Your task to perform on an android device: Open location settings Image 0: 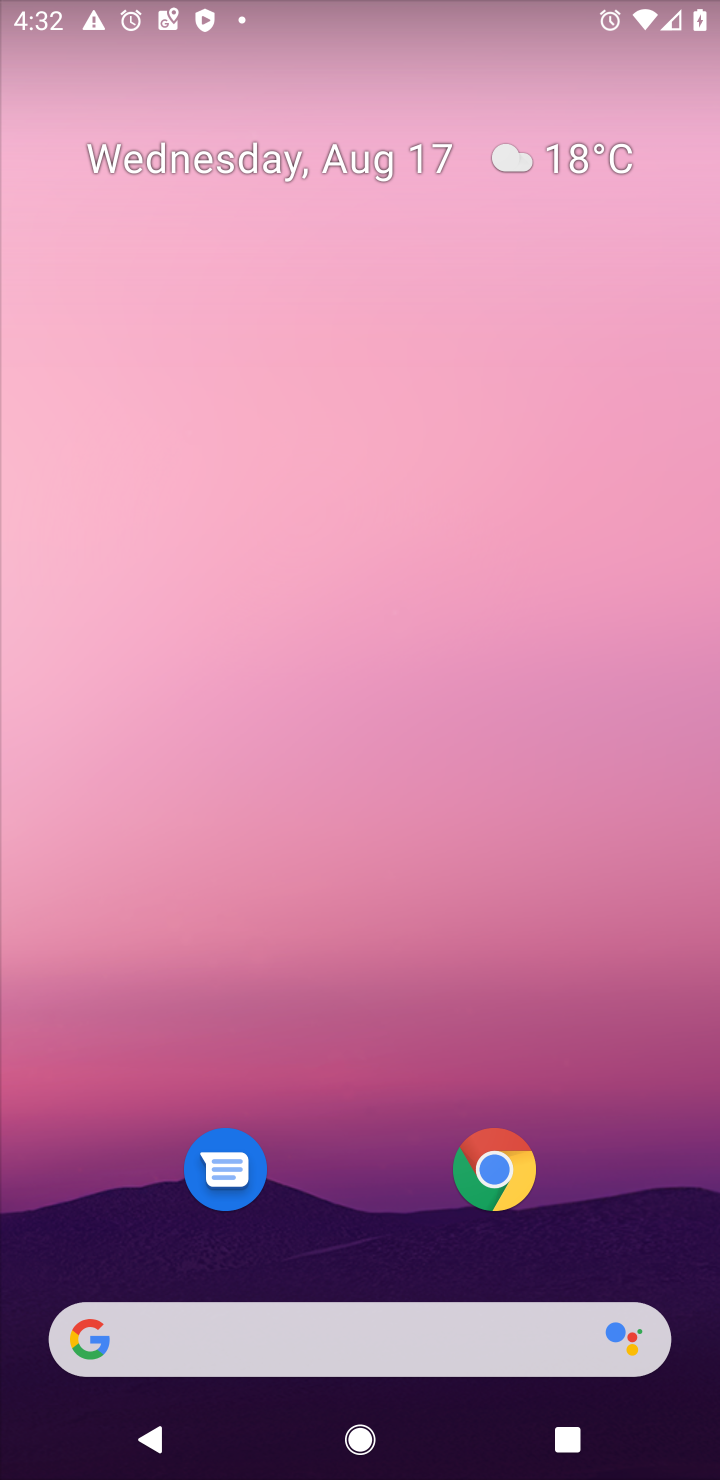
Step 0: press home button
Your task to perform on an android device: Open location settings Image 1: 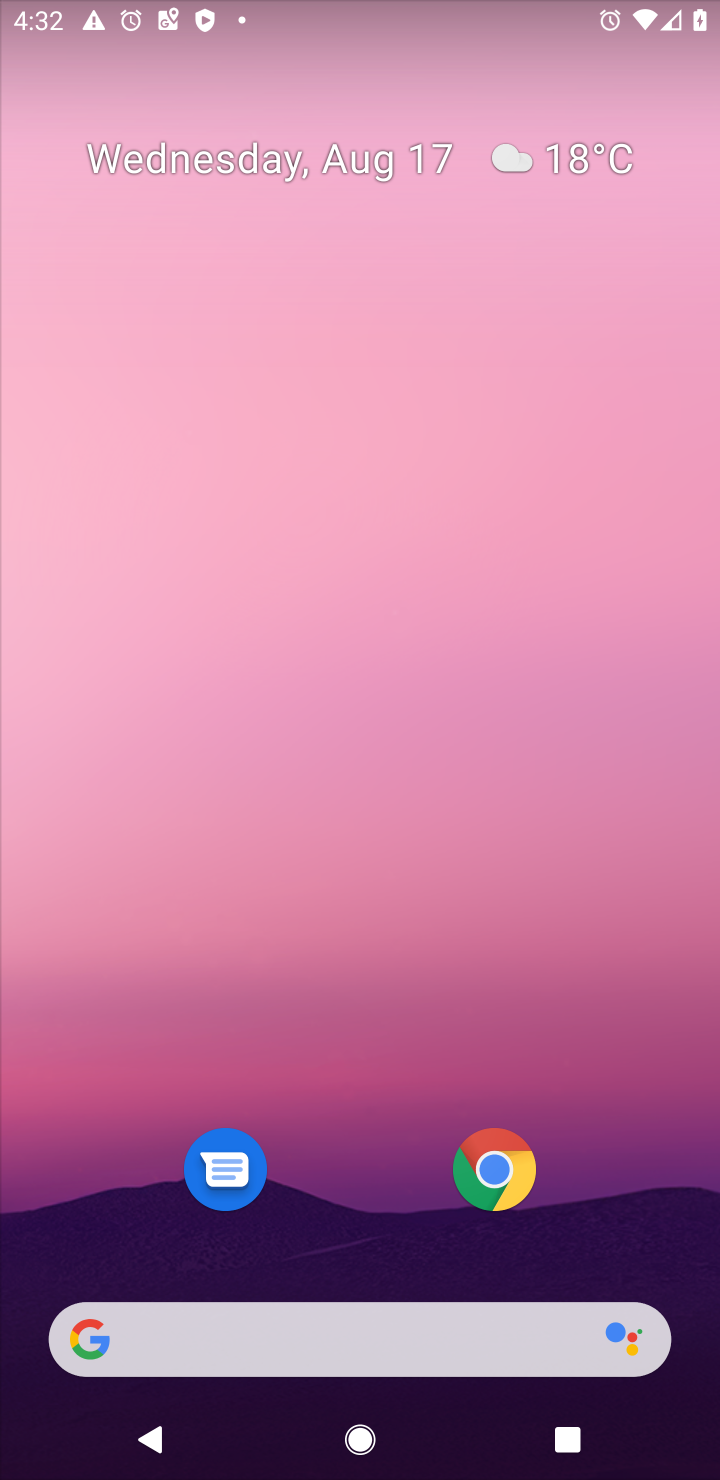
Step 1: drag from (371, 1242) to (429, 289)
Your task to perform on an android device: Open location settings Image 2: 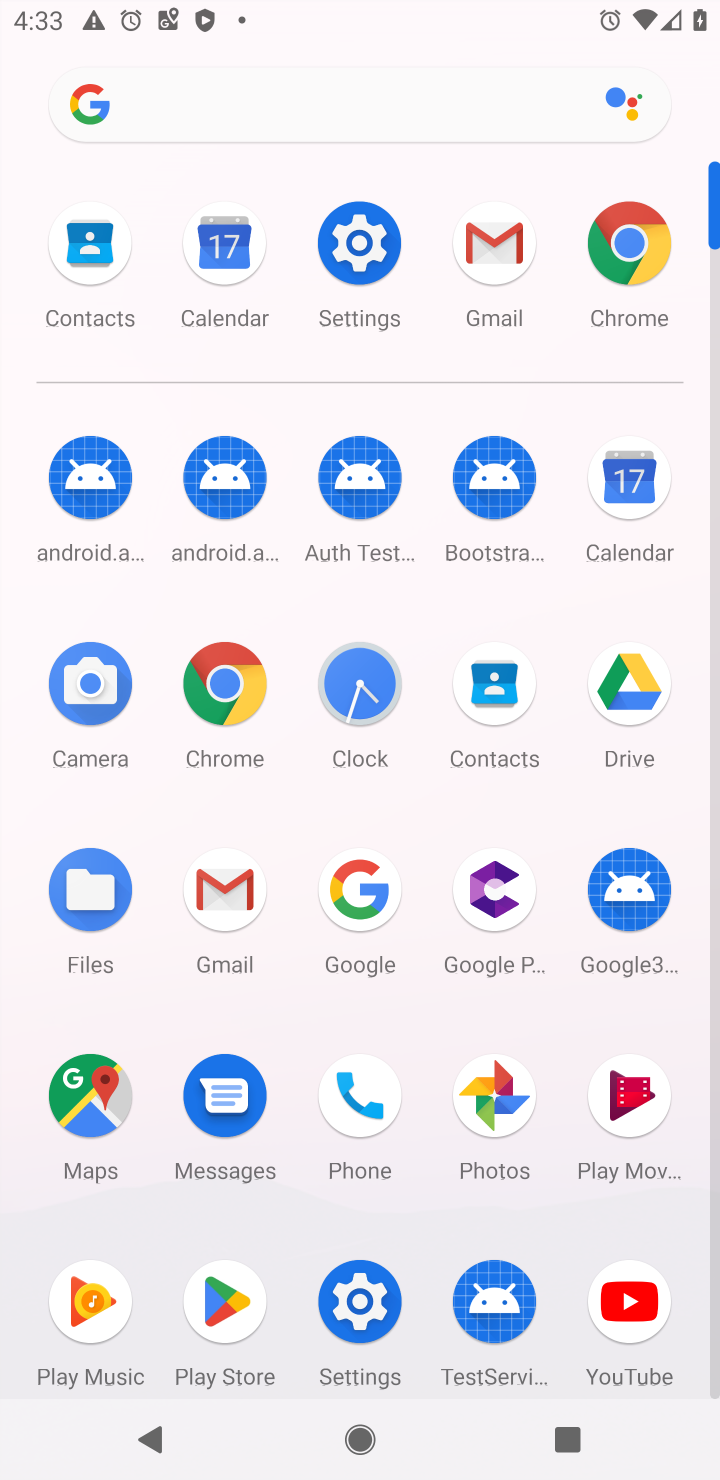
Step 2: click (362, 1303)
Your task to perform on an android device: Open location settings Image 3: 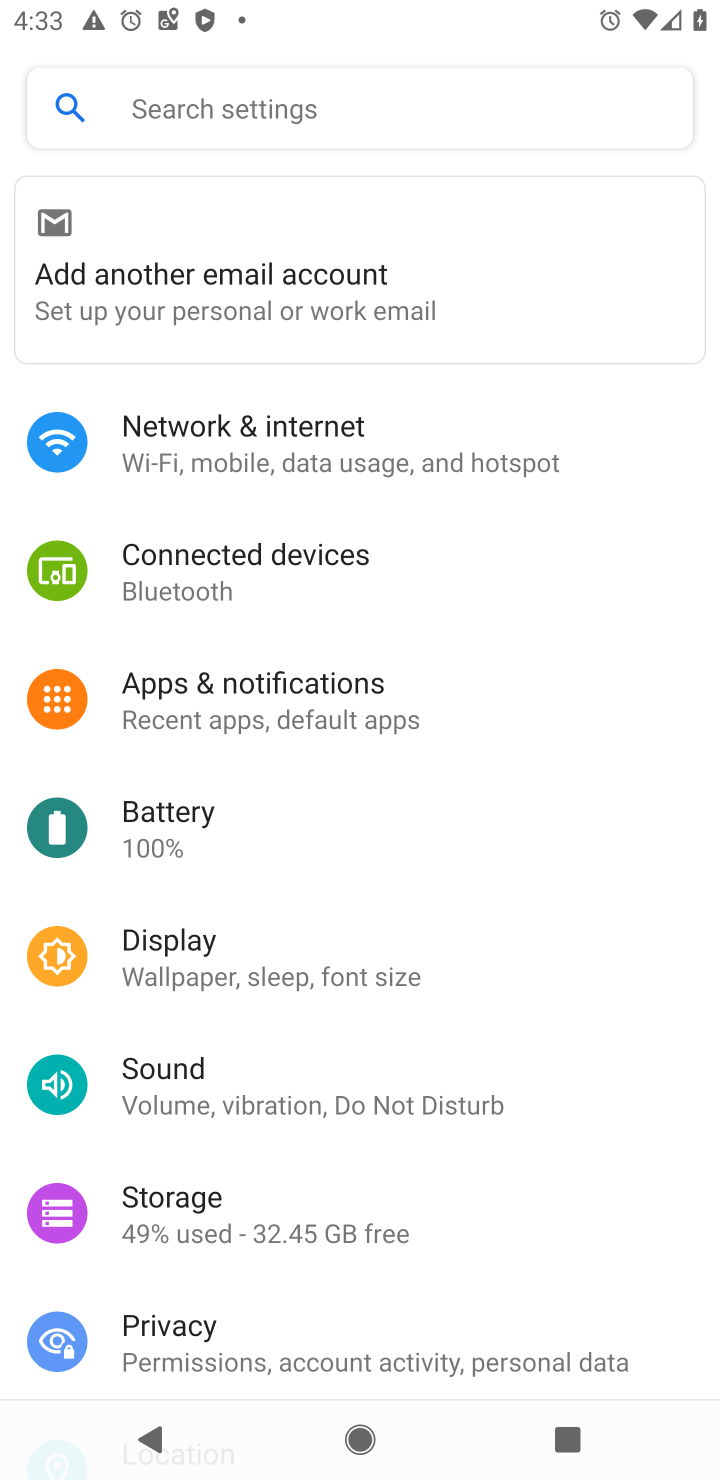
Step 3: drag from (363, 1331) to (334, 617)
Your task to perform on an android device: Open location settings Image 4: 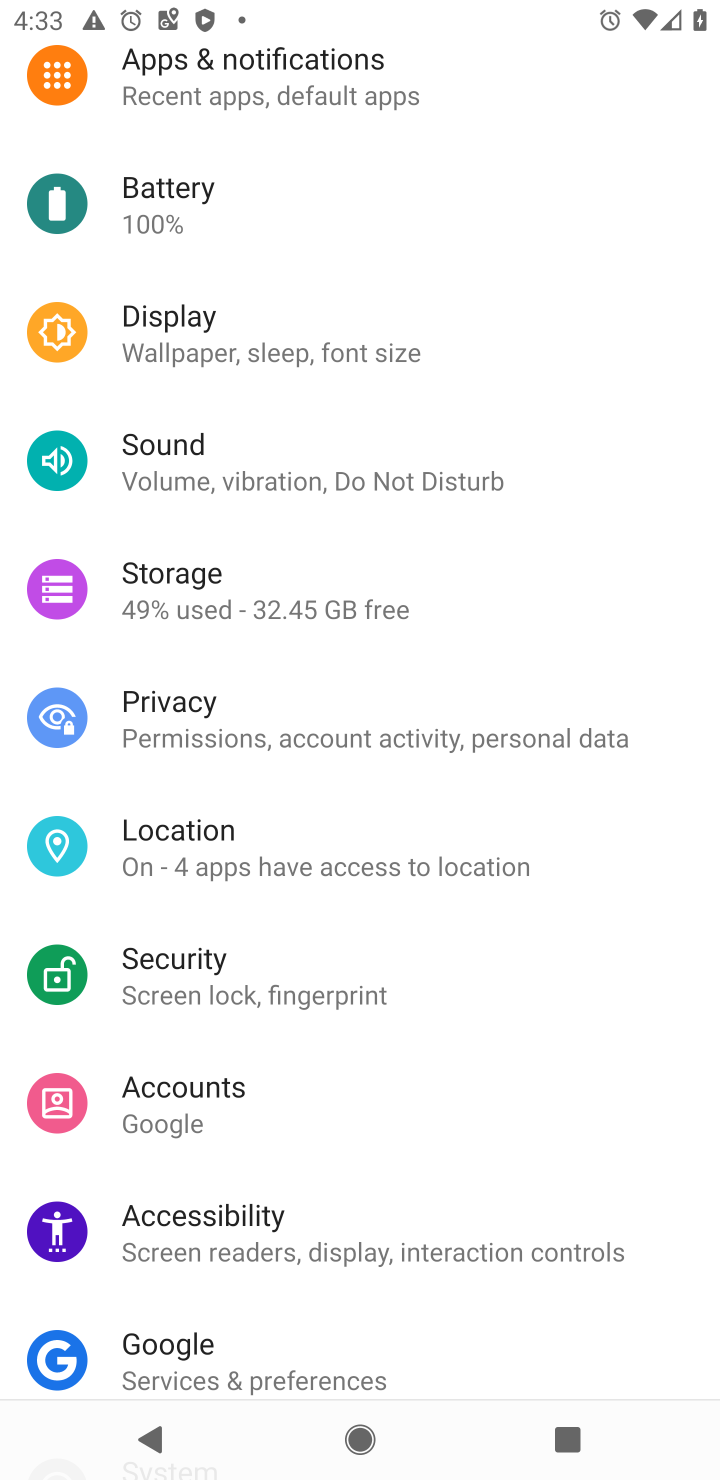
Step 4: click (164, 818)
Your task to perform on an android device: Open location settings Image 5: 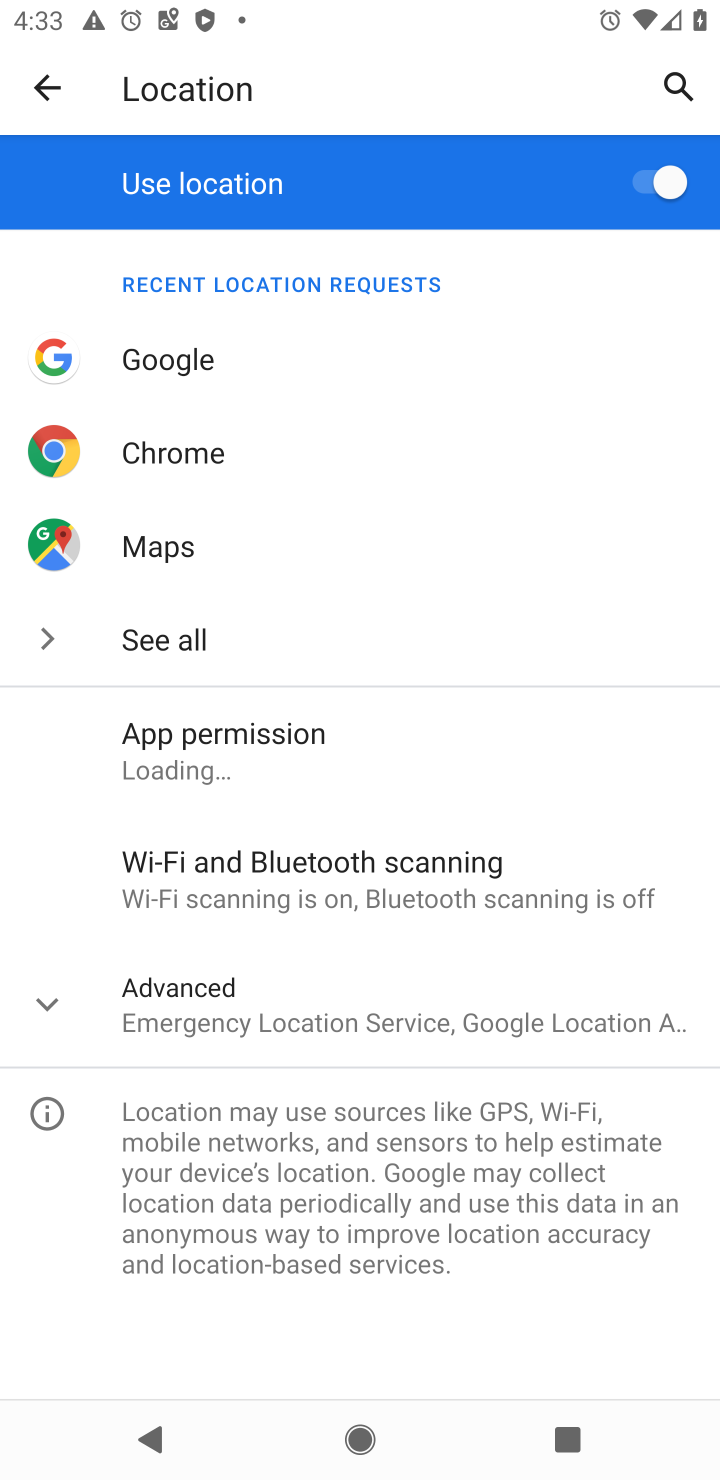
Step 5: task complete